Your task to perform on an android device: Open Maps and search for coffee Image 0: 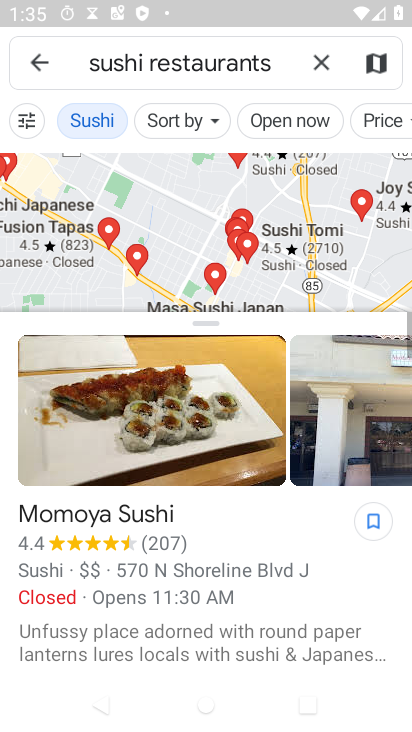
Step 0: press home button
Your task to perform on an android device: Open Maps and search for coffee Image 1: 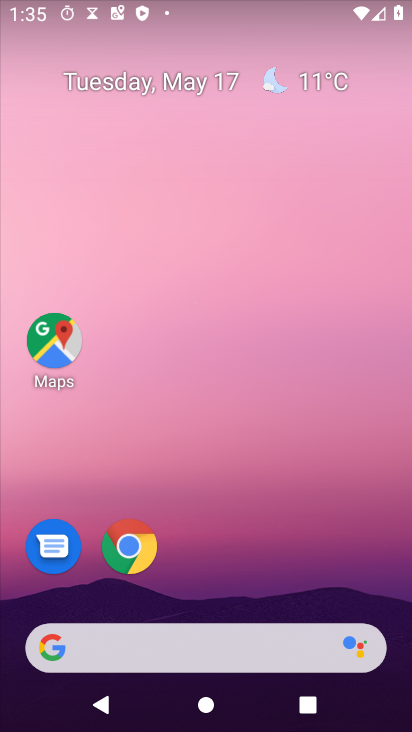
Step 1: click (52, 338)
Your task to perform on an android device: Open Maps and search for coffee Image 2: 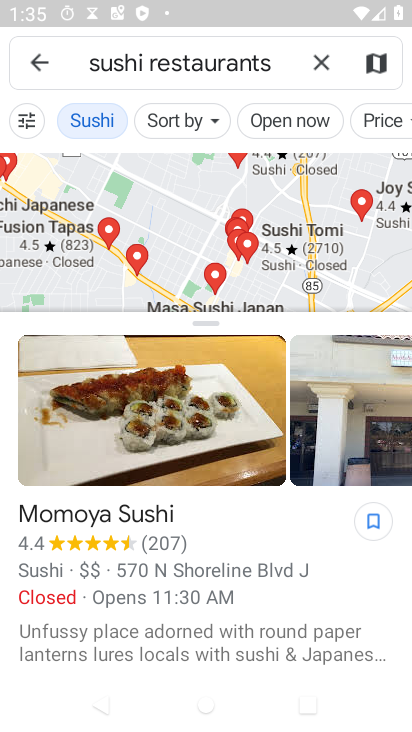
Step 2: click (321, 63)
Your task to perform on an android device: Open Maps and search for coffee Image 3: 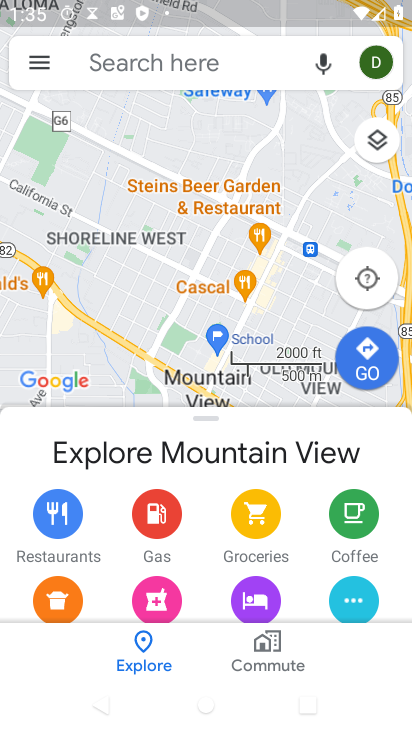
Step 3: click (186, 54)
Your task to perform on an android device: Open Maps and search for coffee Image 4: 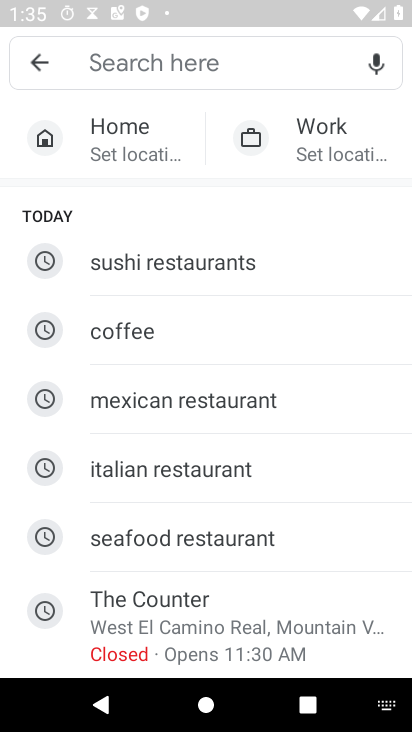
Step 4: click (144, 329)
Your task to perform on an android device: Open Maps and search for coffee Image 5: 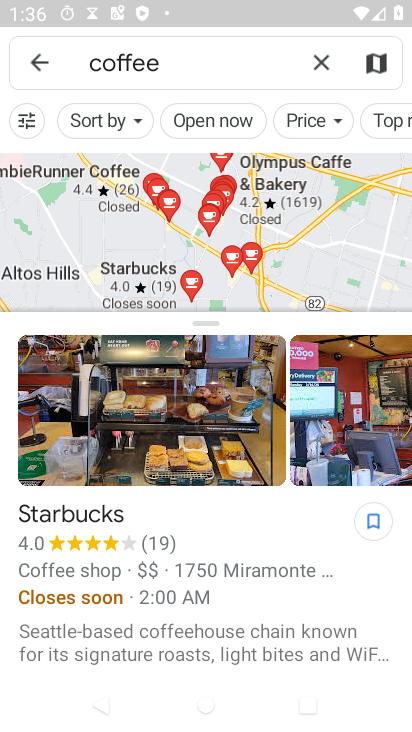
Step 5: task complete